Your task to perform on an android device: Open privacy settings Image 0: 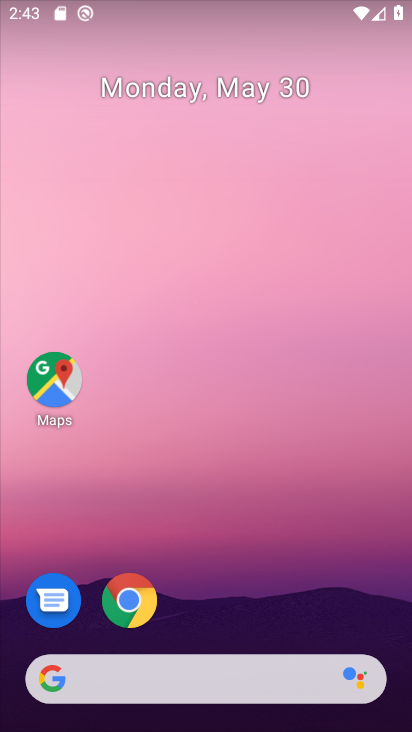
Step 0: drag from (300, 631) to (350, 64)
Your task to perform on an android device: Open privacy settings Image 1: 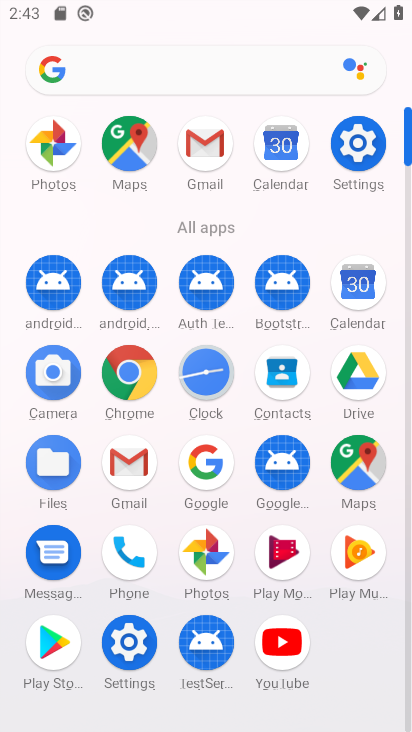
Step 1: click (375, 165)
Your task to perform on an android device: Open privacy settings Image 2: 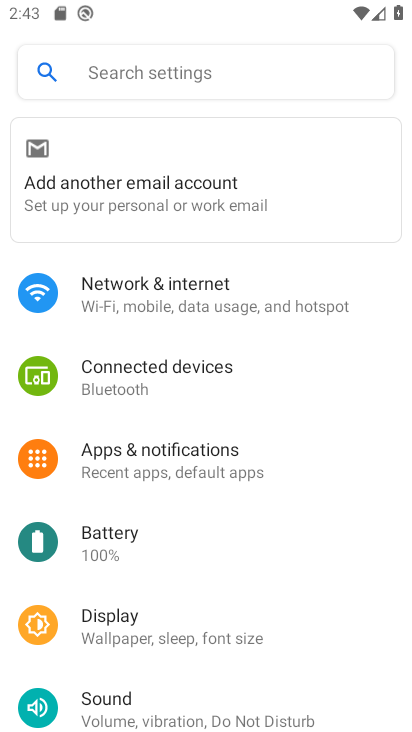
Step 2: drag from (249, 583) to (224, 170)
Your task to perform on an android device: Open privacy settings Image 3: 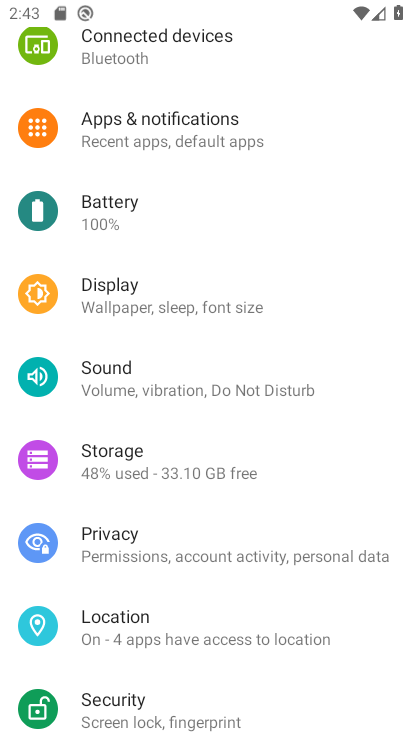
Step 3: click (107, 527)
Your task to perform on an android device: Open privacy settings Image 4: 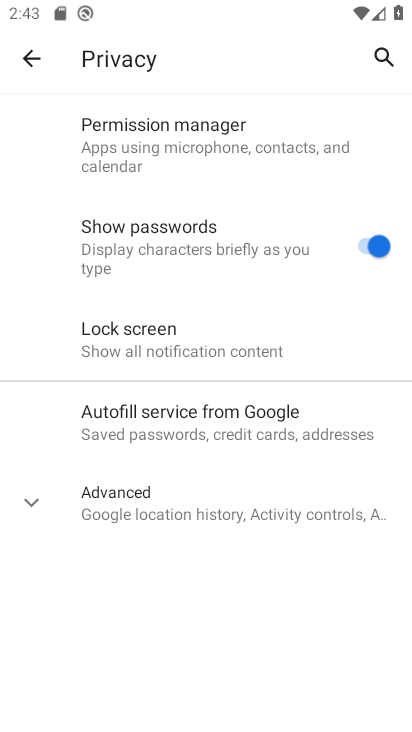
Step 4: task complete